Your task to perform on an android device: toggle pop-ups in chrome Image 0: 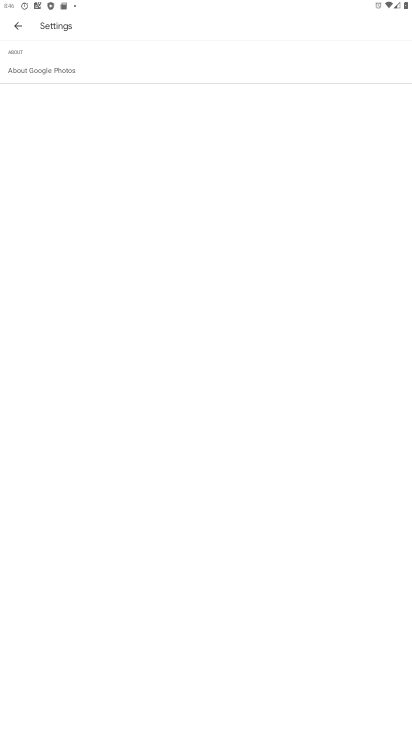
Step 0: press home button
Your task to perform on an android device: toggle pop-ups in chrome Image 1: 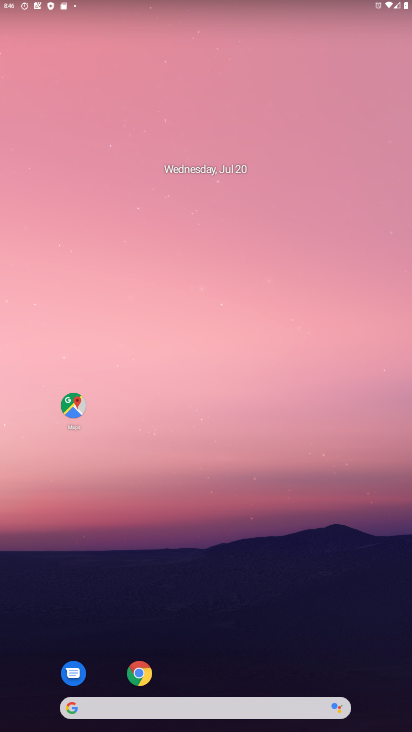
Step 1: click (142, 673)
Your task to perform on an android device: toggle pop-ups in chrome Image 2: 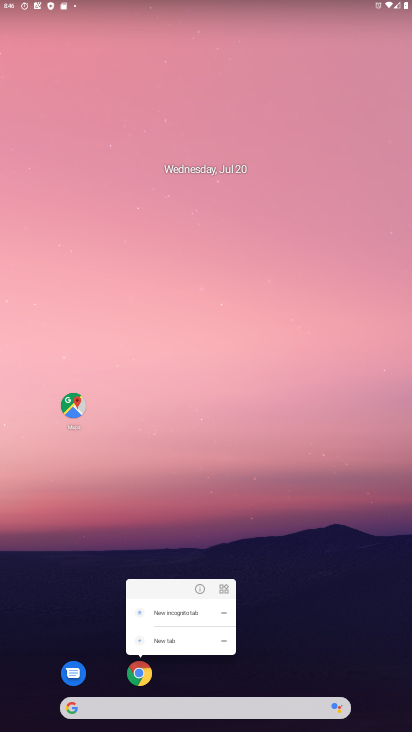
Step 2: click (142, 673)
Your task to perform on an android device: toggle pop-ups in chrome Image 3: 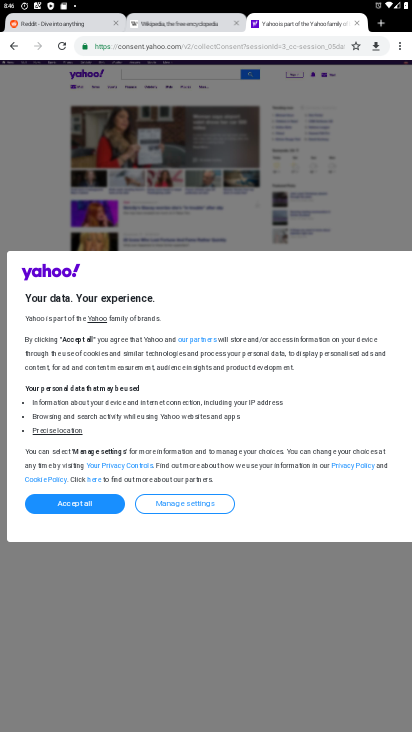
Step 3: click (394, 47)
Your task to perform on an android device: toggle pop-ups in chrome Image 4: 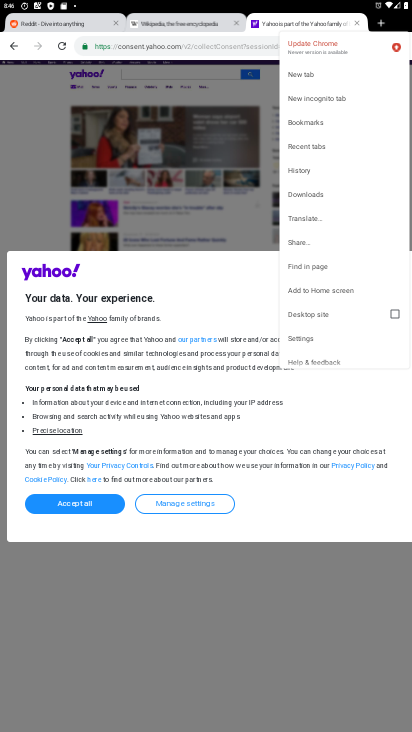
Step 4: click (305, 339)
Your task to perform on an android device: toggle pop-ups in chrome Image 5: 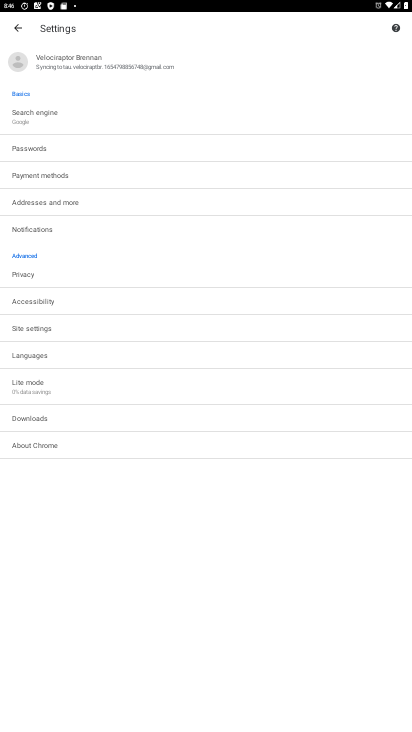
Step 5: click (41, 329)
Your task to perform on an android device: toggle pop-ups in chrome Image 6: 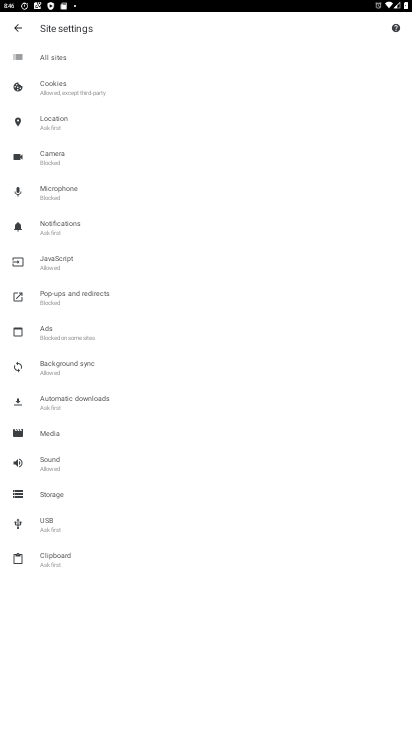
Step 6: click (60, 306)
Your task to perform on an android device: toggle pop-ups in chrome Image 7: 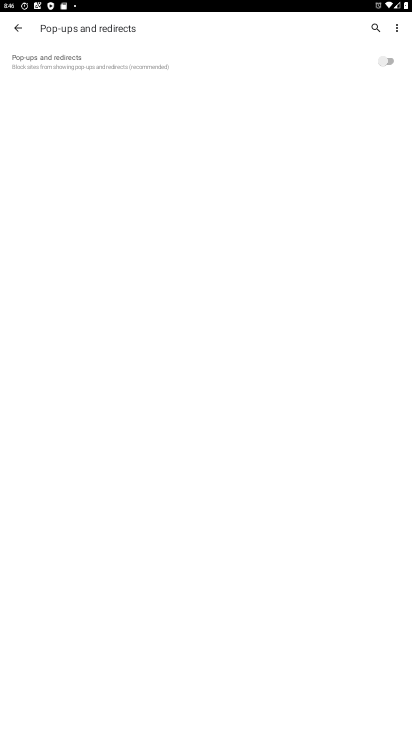
Step 7: click (385, 60)
Your task to perform on an android device: toggle pop-ups in chrome Image 8: 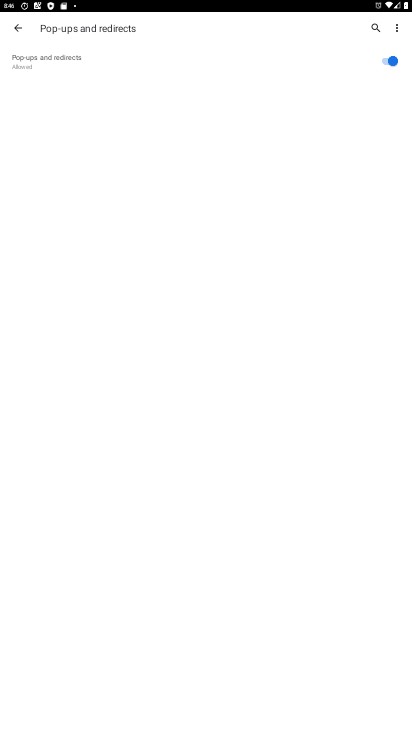
Step 8: task complete